Your task to perform on an android device: check storage Image 0: 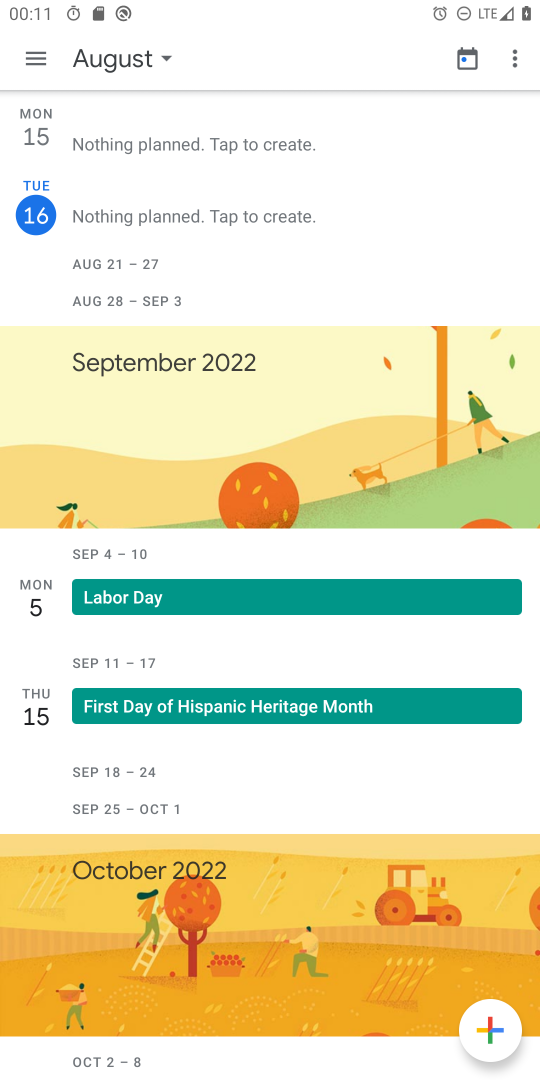
Step 0: drag from (293, 916) to (336, 188)
Your task to perform on an android device: check storage Image 1: 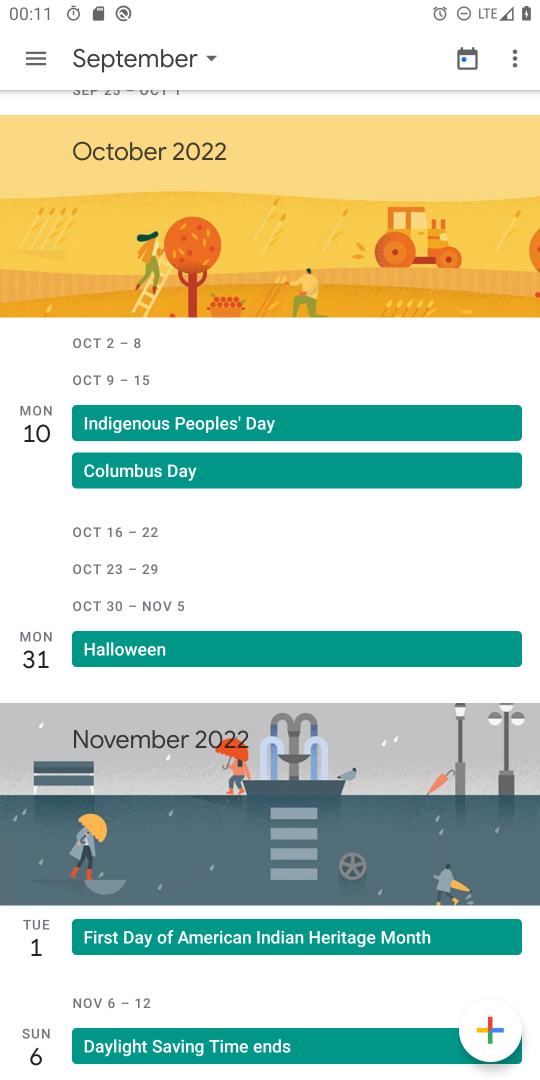
Step 1: press home button
Your task to perform on an android device: check storage Image 2: 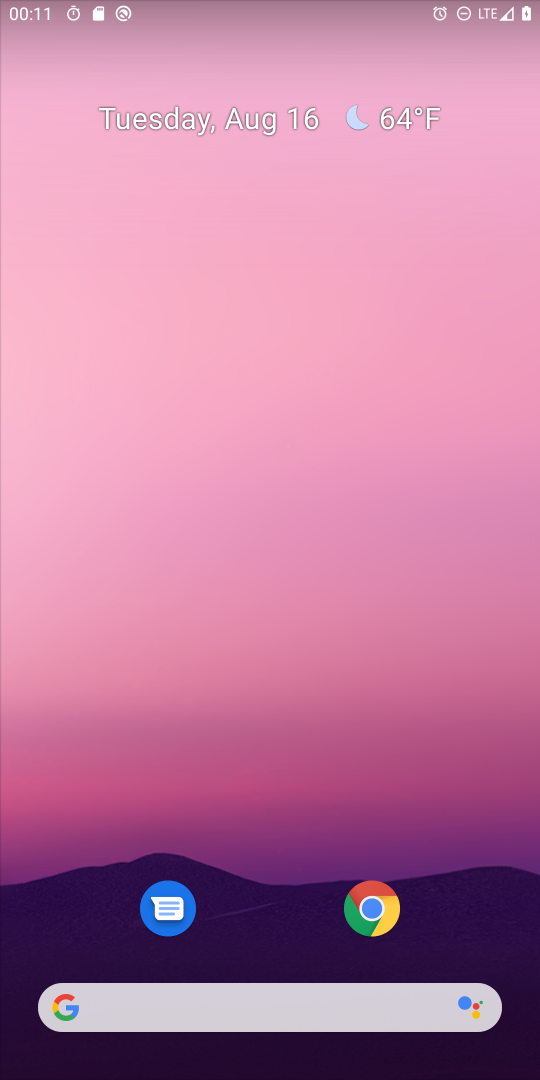
Step 2: drag from (274, 921) to (229, 163)
Your task to perform on an android device: check storage Image 3: 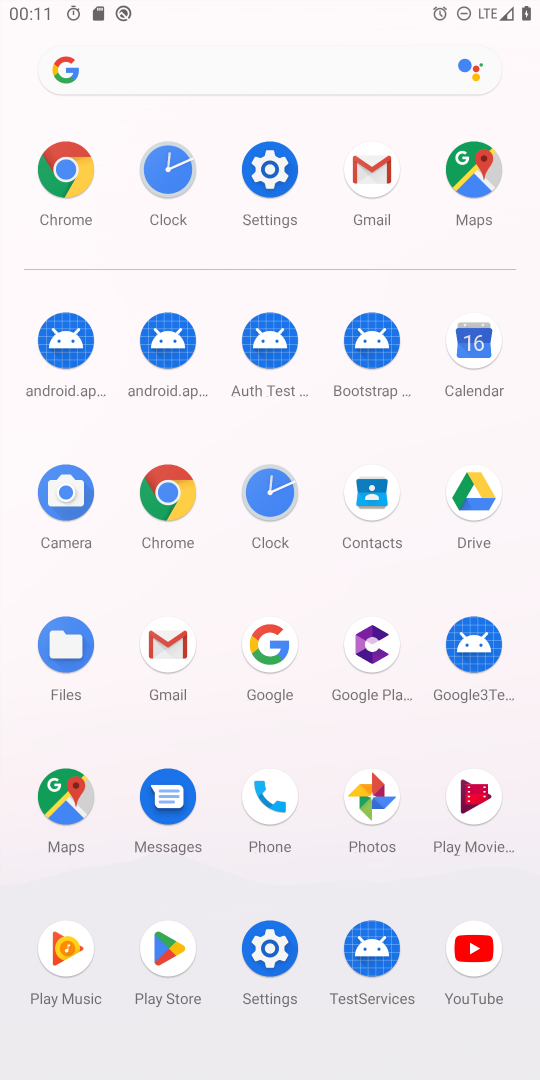
Step 3: click (288, 163)
Your task to perform on an android device: check storage Image 4: 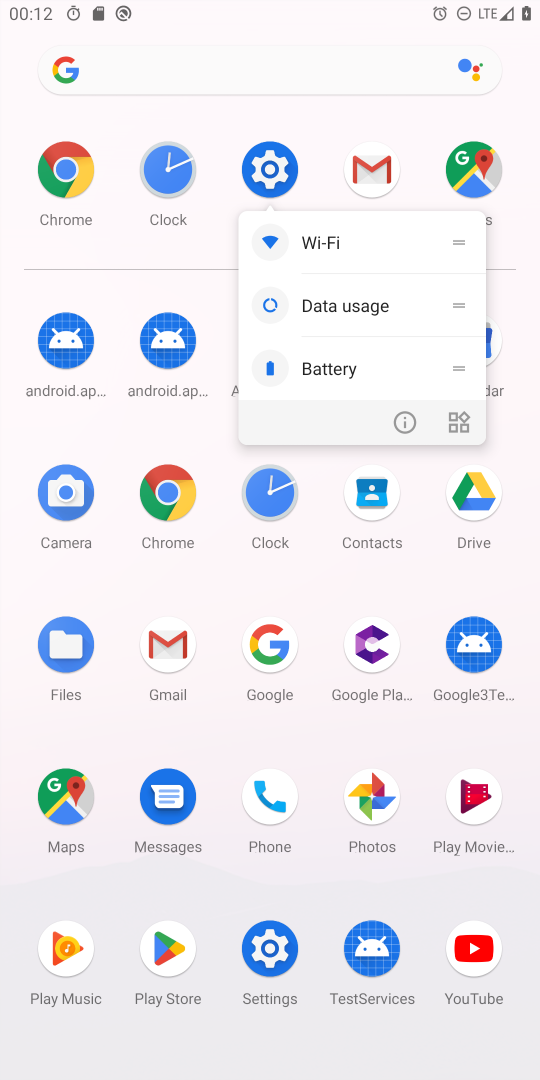
Step 4: click (267, 165)
Your task to perform on an android device: check storage Image 5: 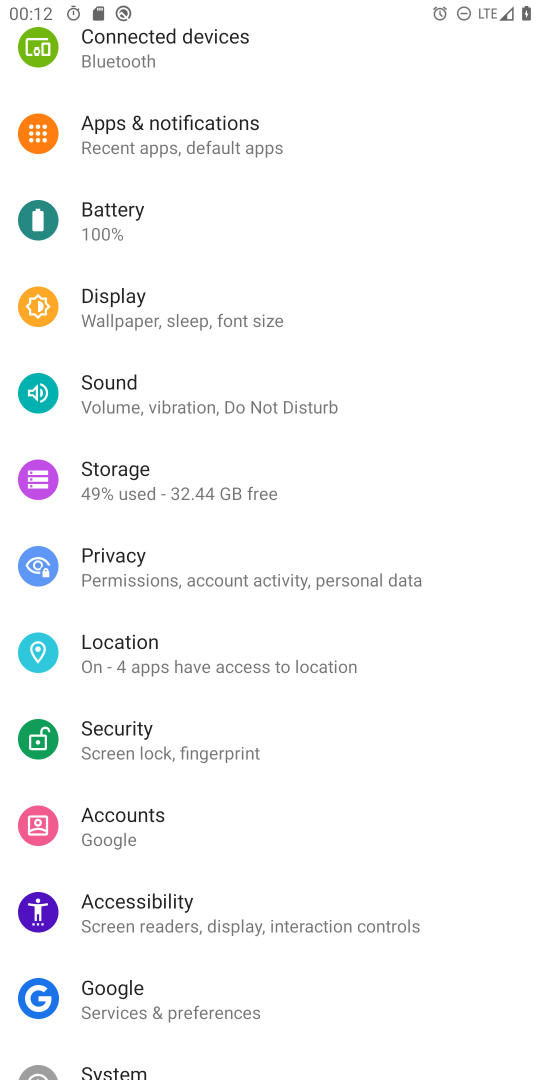
Step 5: click (246, 497)
Your task to perform on an android device: check storage Image 6: 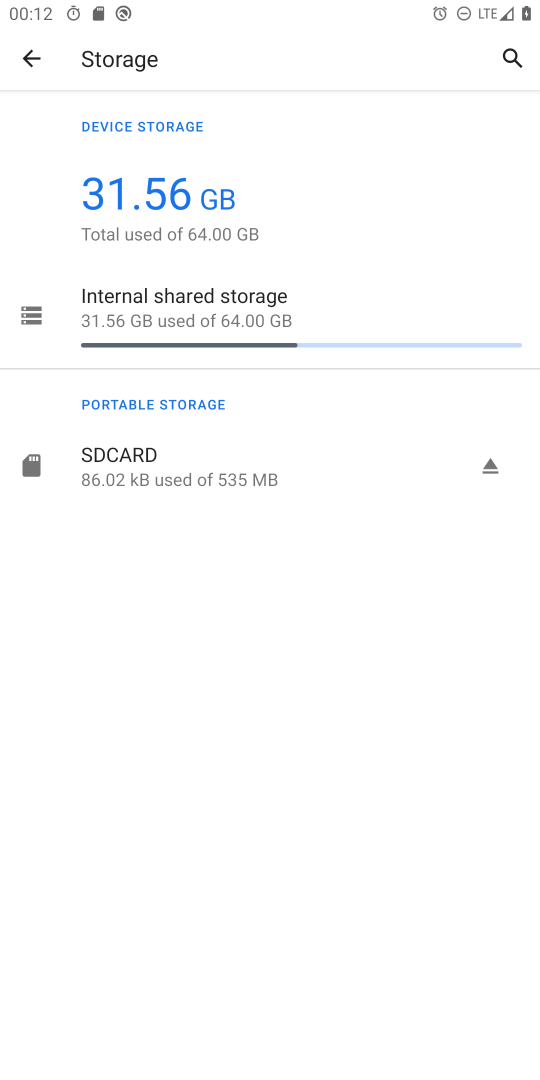
Step 6: task complete